Your task to perform on an android device: What's the weather going to be tomorrow? Image 0: 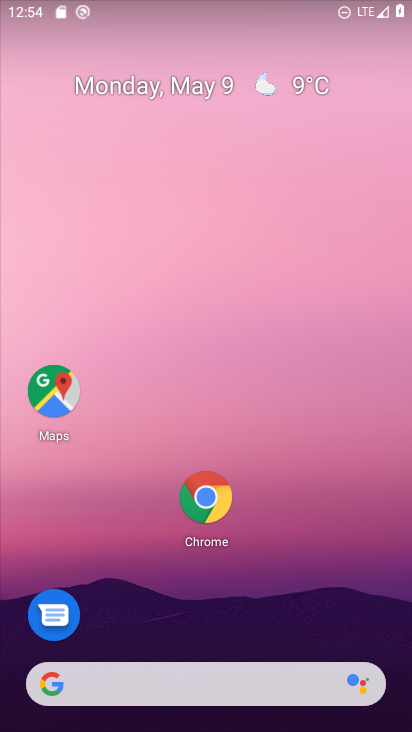
Step 0: click (295, 84)
Your task to perform on an android device: What's the weather going to be tomorrow? Image 1: 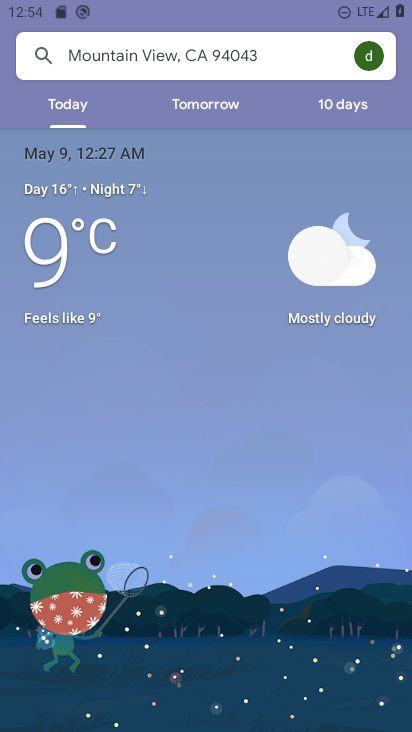
Step 1: click (187, 101)
Your task to perform on an android device: What's the weather going to be tomorrow? Image 2: 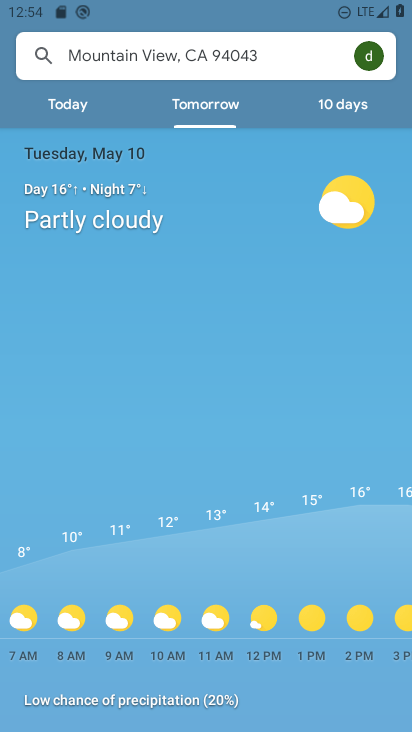
Step 2: task complete